Your task to perform on an android device: When is my next appointment? Image 0: 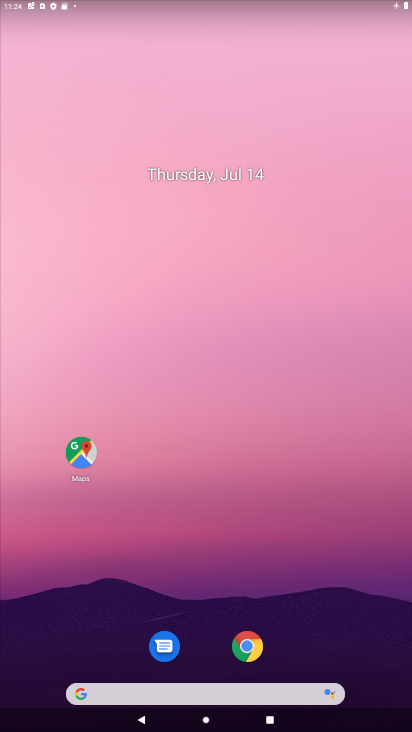
Step 0: drag from (202, 633) to (182, 283)
Your task to perform on an android device: When is my next appointment? Image 1: 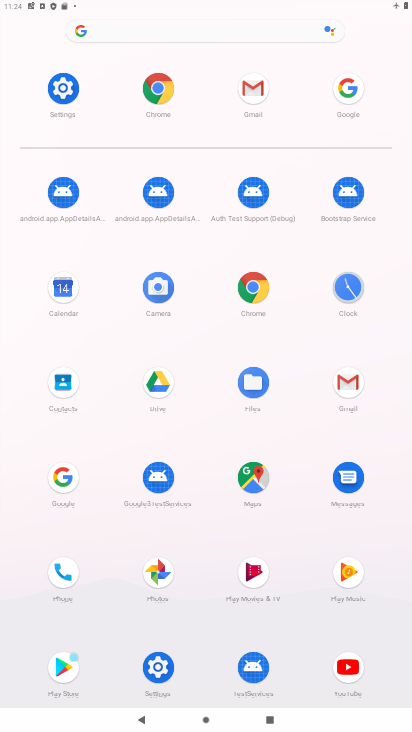
Step 1: click (76, 384)
Your task to perform on an android device: When is my next appointment? Image 2: 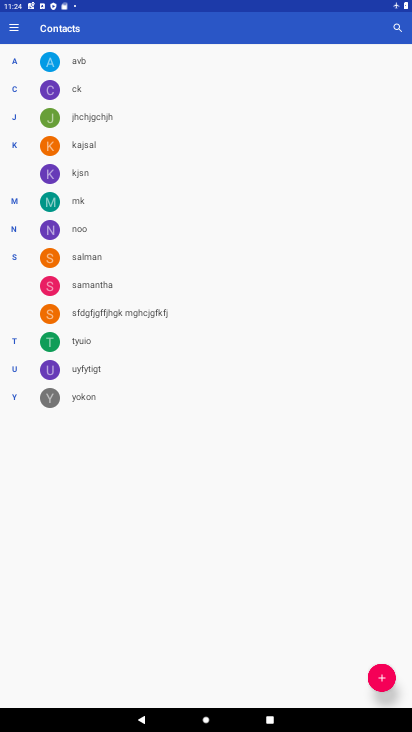
Step 2: press home button
Your task to perform on an android device: When is my next appointment? Image 3: 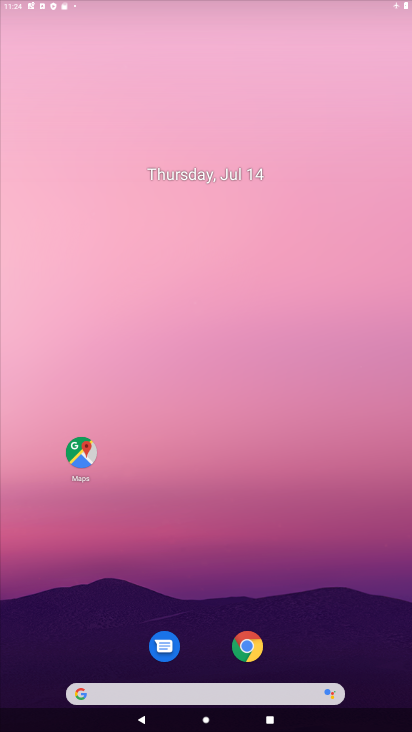
Step 3: drag from (198, 620) to (148, 46)
Your task to perform on an android device: When is my next appointment? Image 4: 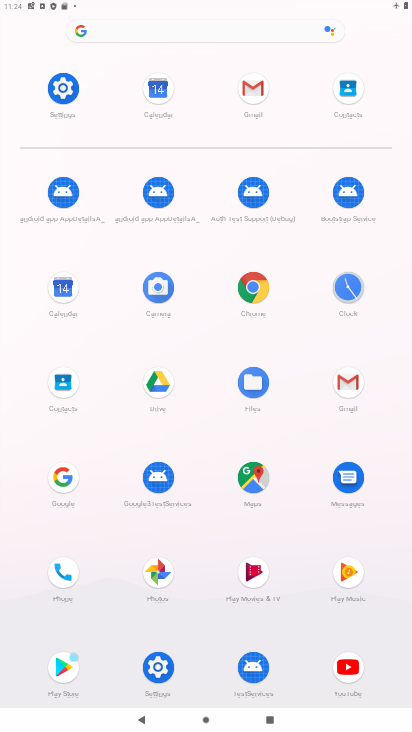
Step 4: click (74, 282)
Your task to perform on an android device: When is my next appointment? Image 5: 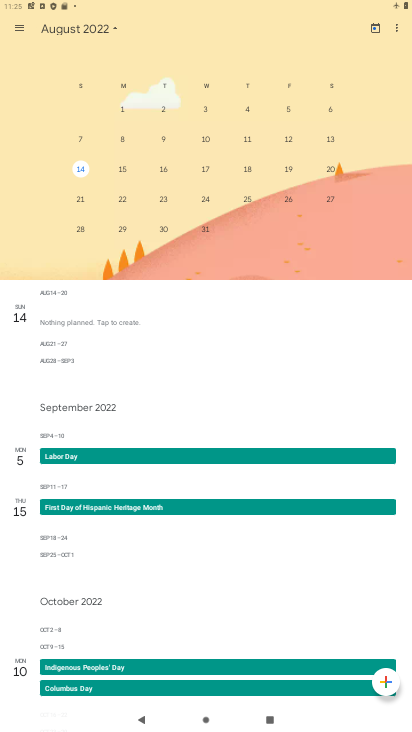
Step 5: task complete